Your task to perform on an android device: check android version Image 0: 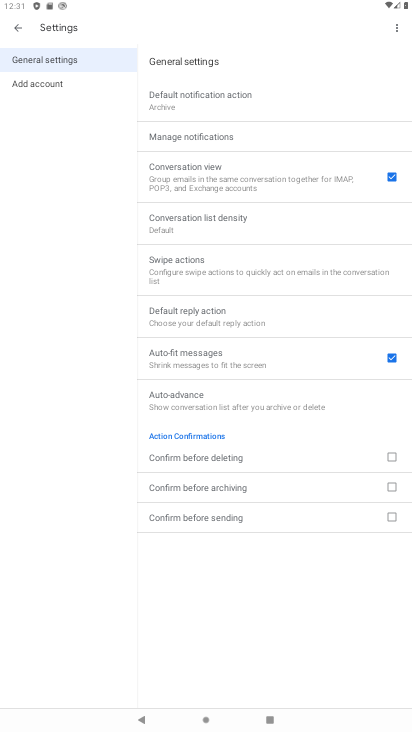
Step 0: press home button
Your task to perform on an android device: check android version Image 1: 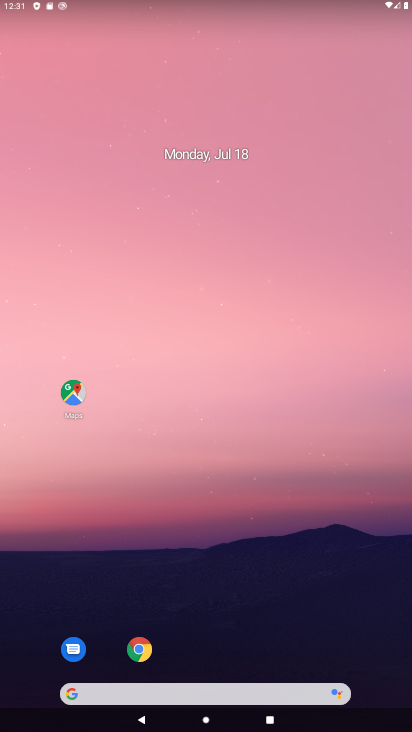
Step 1: drag from (32, 648) to (129, 136)
Your task to perform on an android device: check android version Image 2: 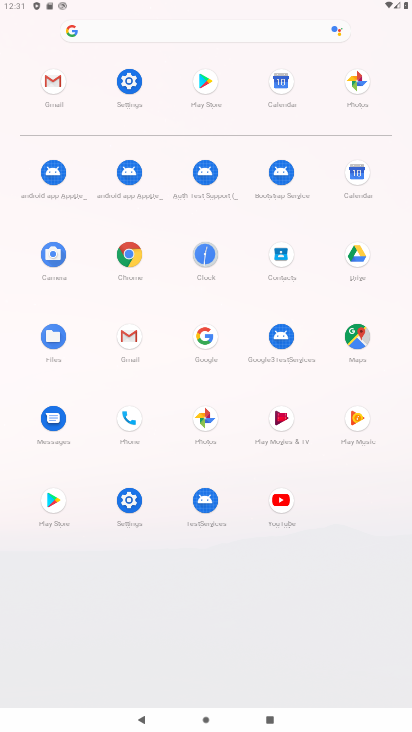
Step 2: click (125, 505)
Your task to perform on an android device: check android version Image 3: 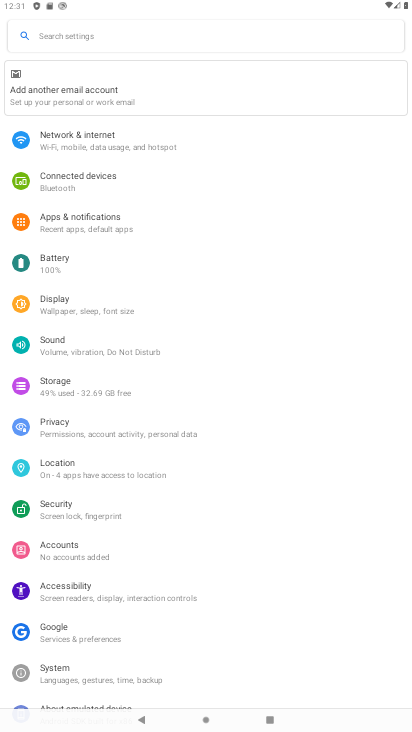
Step 3: drag from (274, 602) to (320, 296)
Your task to perform on an android device: check android version Image 4: 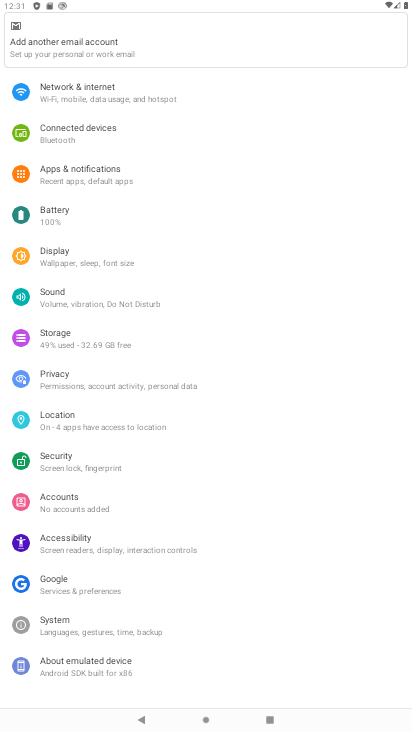
Step 4: click (109, 665)
Your task to perform on an android device: check android version Image 5: 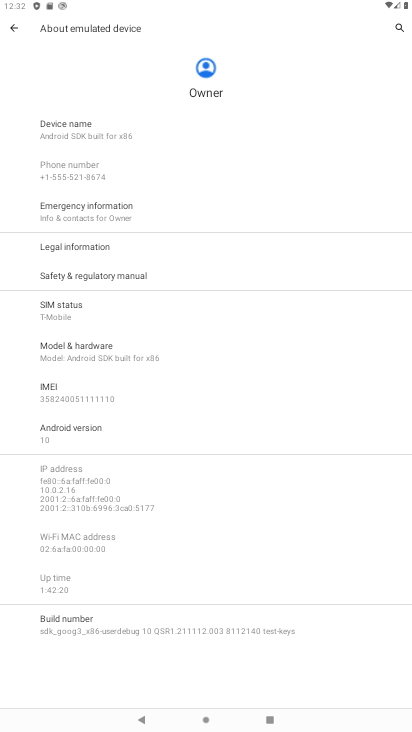
Step 5: click (110, 434)
Your task to perform on an android device: check android version Image 6: 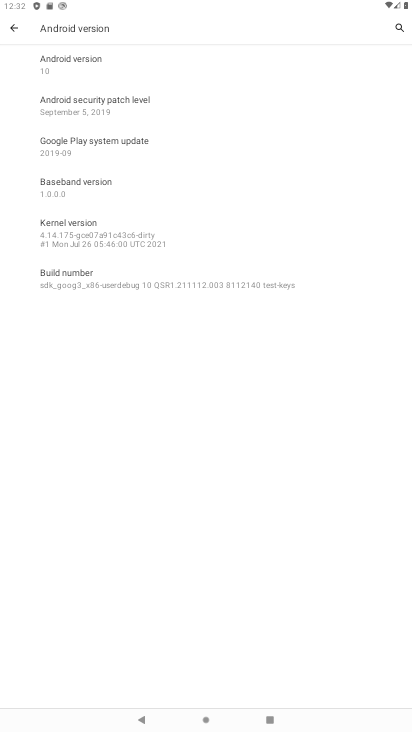
Step 6: task complete